Your task to perform on an android device: turn notification dots off Image 0: 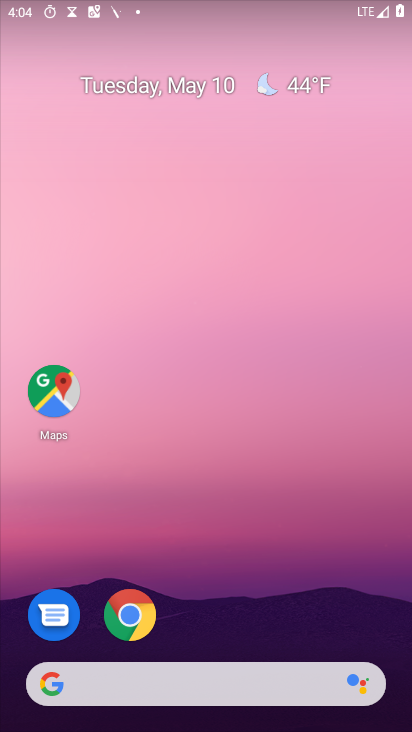
Step 0: drag from (150, 571) to (273, 9)
Your task to perform on an android device: turn notification dots off Image 1: 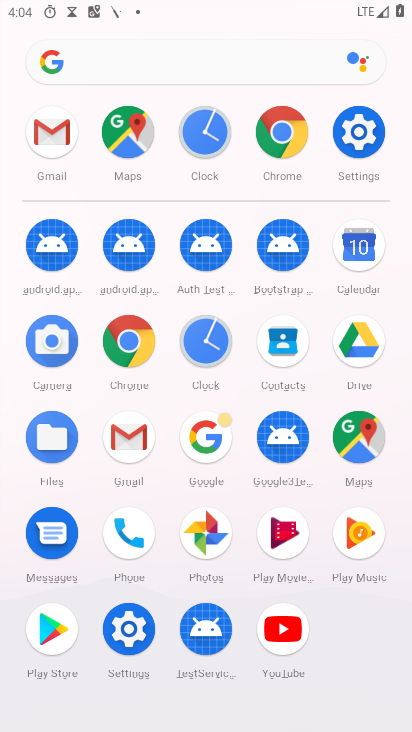
Step 1: click (370, 204)
Your task to perform on an android device: turn notification dots off Image 2: 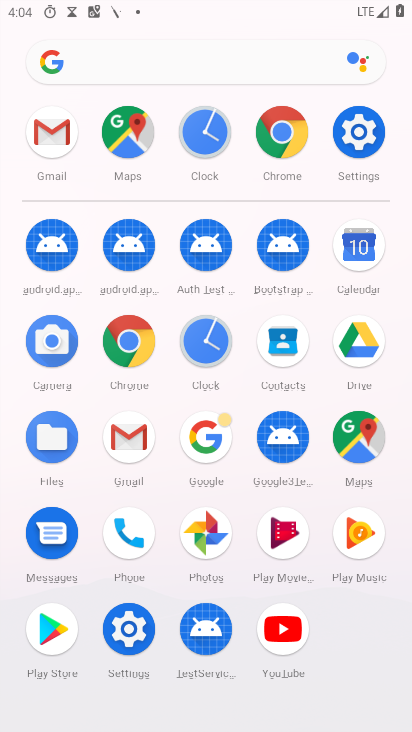
Step 2: click (351, 137)
Your task to perform on an android device: turn notification dots off Image 3: 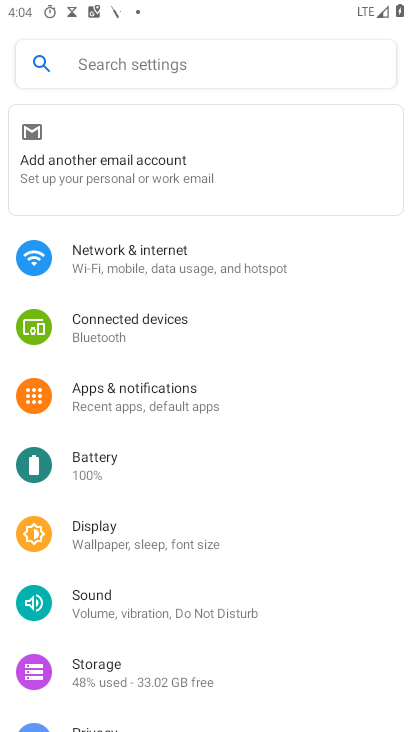
Step 3: click (158, 400)
Your task to perform on an android device: turn notification dots off Image 4: 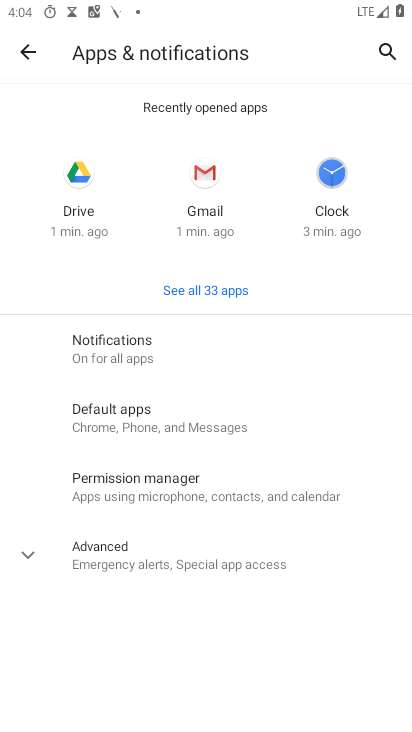
Step 4: click (144, 360)
Your task to perform on an android device: turn notification dots off Image 5: 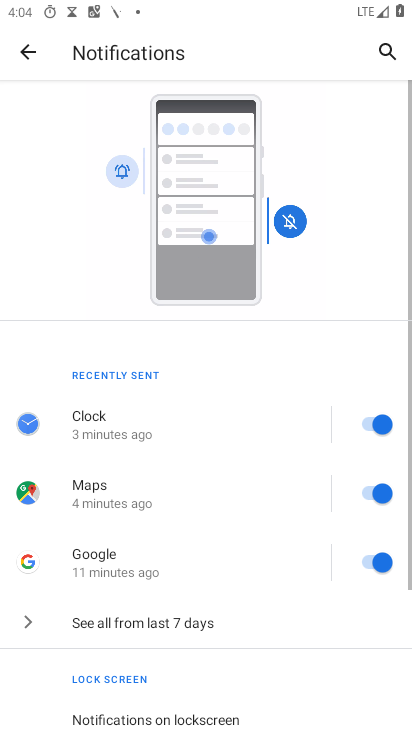
Step 5: drag from (211, 617) to (220, 227)
Your task to perform on an android device: turn notification dots off Image 6: 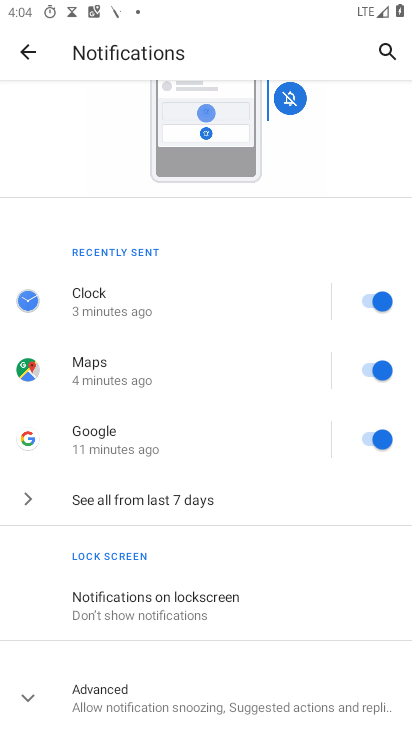
Step 6: click (208, 715)
Your task to perform on an android device: turn notification dots off Image 7: 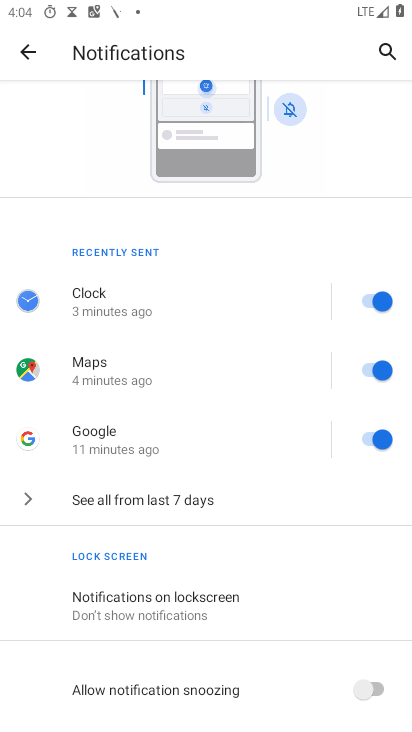
Step 7: drag from (192, 692) to (199, 287)
Your task to perform on an android device: turn notification dots off Image 8: 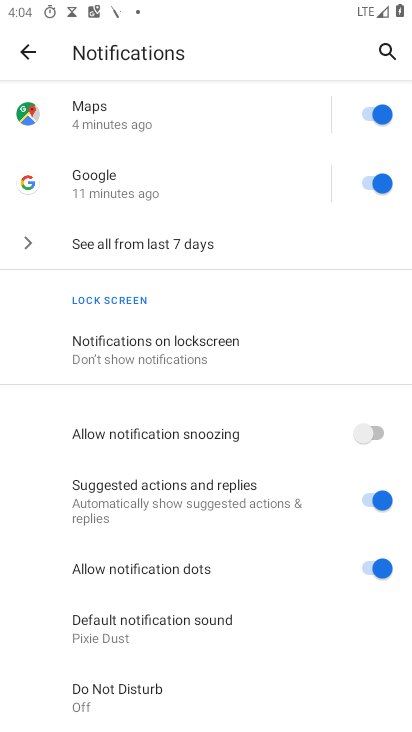
Step 8: click (368, 571)
Your task to perform on an android device: turn notification dots off Image 9: 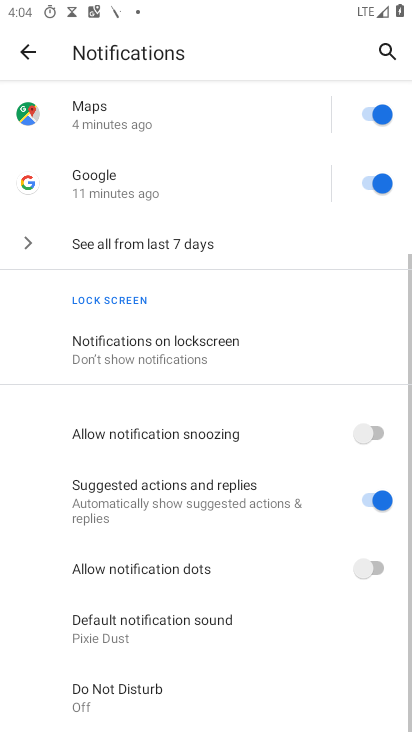
Step 9: task complete